Your task to perform on an android device: Open CNN.com Image 0: 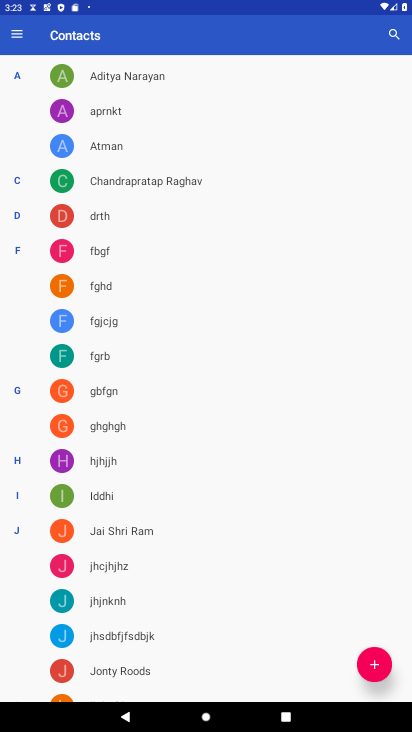
Step 0: press home button
Your task to perform on an android device: Open CNN.com Image 1: 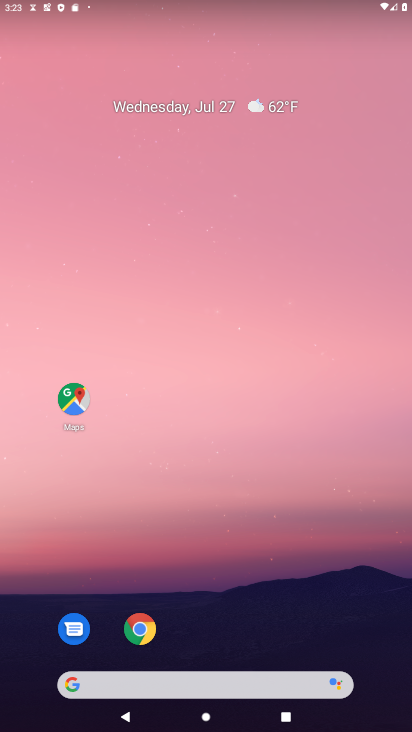
Step 1: click (140, 630)
Your task to perform on an android device: Open CNN.com Image 2: 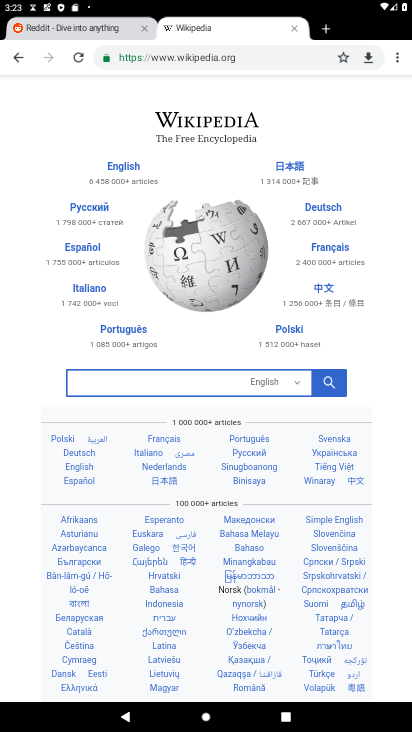
Step 2: click (263, 57)
Your task to perform on an android device: Open CNN.com Image 3: 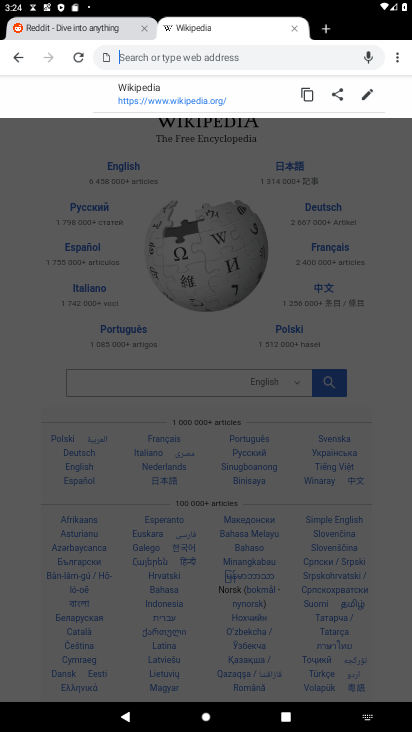
Step 3: type "CNN.com"
Your task to perform on an android device: Open CNN.com Image 4: 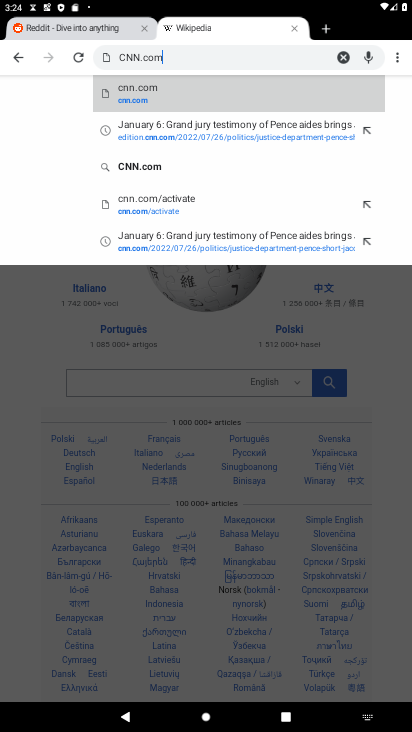
Step 4: click (156, 169)
Your task to perform on an android device: Open CNN.com Image 5: 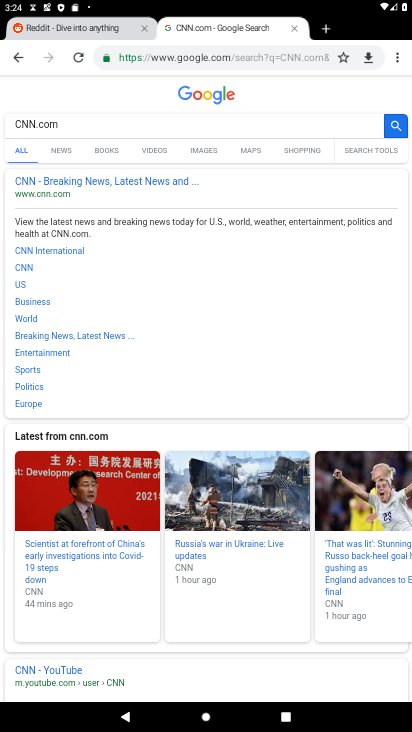
Step 5: click (131, 181)
Your task to perform on an android device: Open CNN.com Image 6: 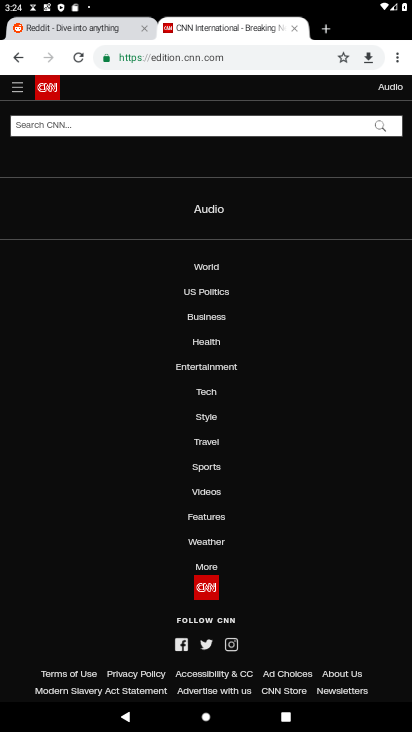
Step 6: task complete